Your task to perform on an android device: set default search engine in the chrome app Image 0: 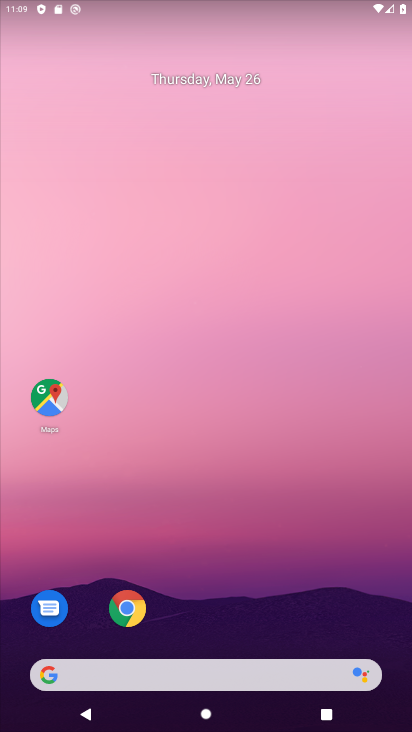
Step 0: click (136, 606)
Your task to perform on an android device: set default search engine in the chrome app Image 1: 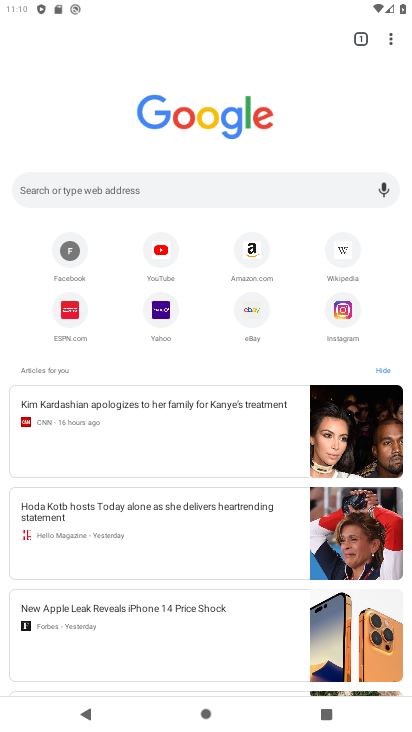
Step 1: click (392, 35)
Your task to perform on an android device: set default search engine in the chrome app Image 2: 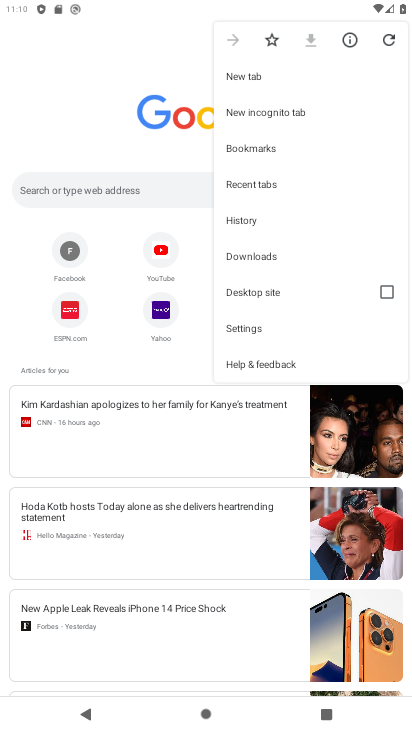
Step 2: click (240, 326)
Your task to perform on an android device: set default search engine in the chrome app Image 3: 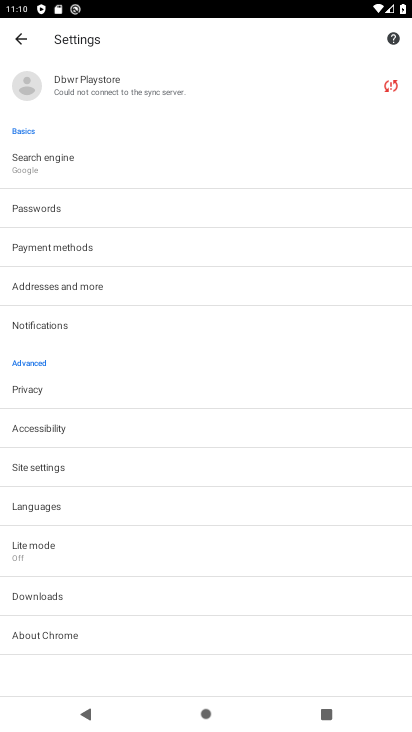
Step 3: click (29, 159)
Your task to perform on an android device: set default search engine in the chrome app Image 4: 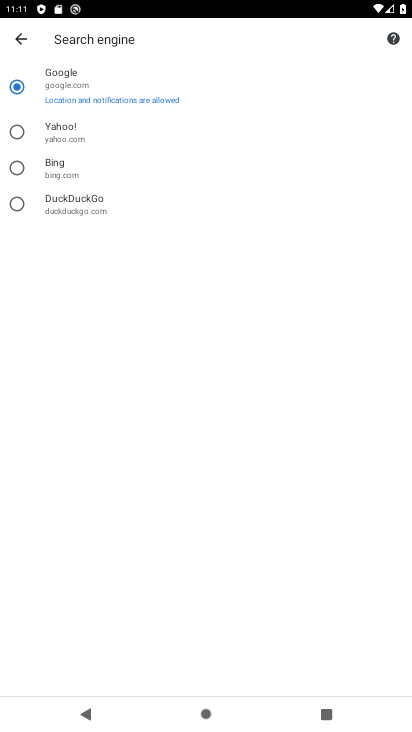
Step 4: click (44, 164)
Your task to perform on an android device: set default search engine in the chrome app Image 5: 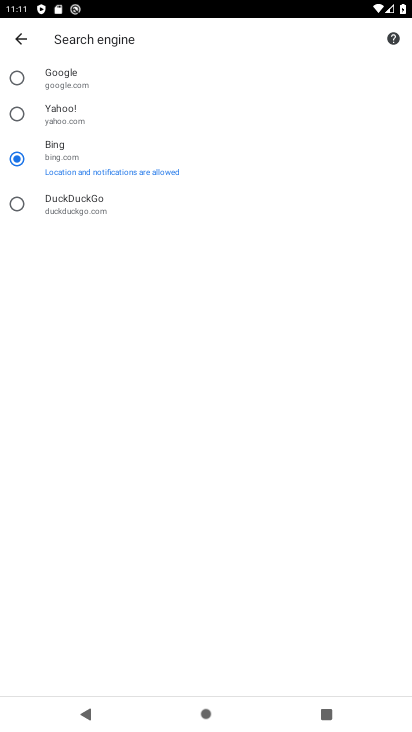
Step 5: task complete